Your task to perform on an android device: Open Reddit.com Image 0: 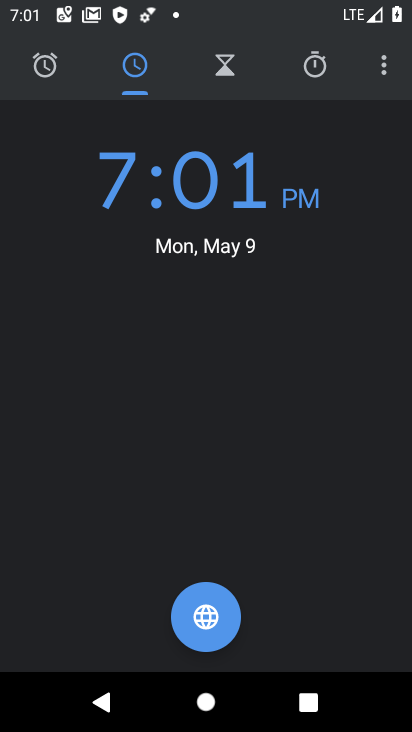
Step 0: press back button
Your task to perform on an android device: Open Reddit.com Image 1: 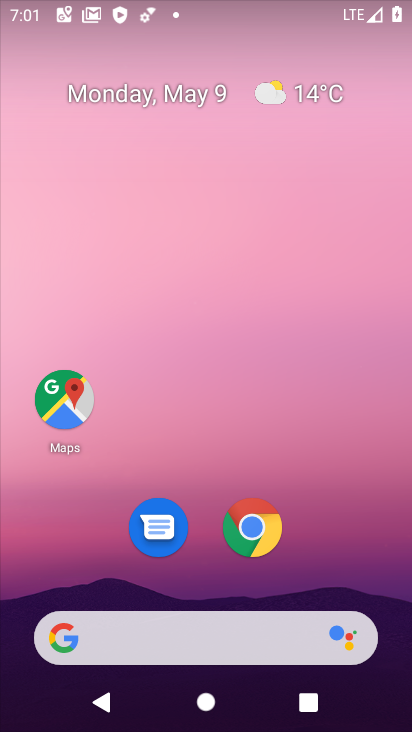
Step 1: click (249, 527)
Your task to perform on an android device: Open Reddit.com Image 2: 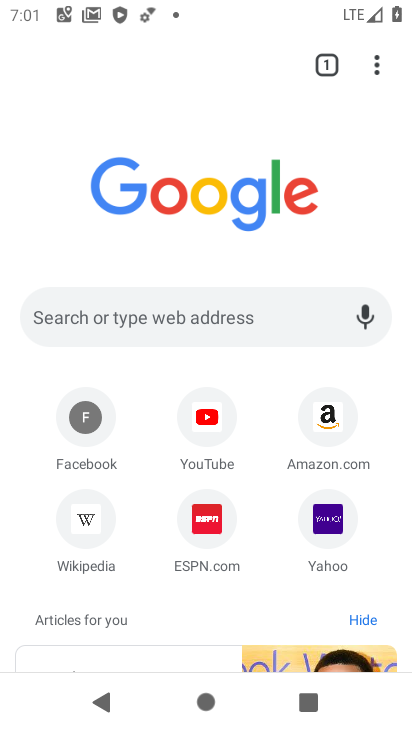
Step 2: click (254, 308)
Your task to perform on an android device: Open Reddit.com Image 3: 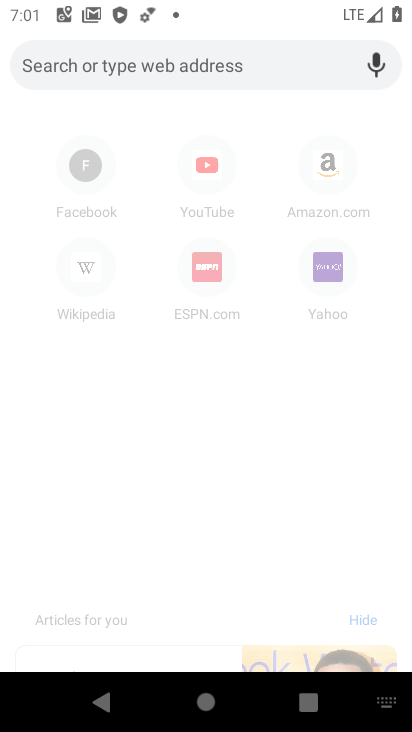
Step 3: type "Reddit.com"
Your task to perform on an android device: Open Reddit.com Image 4: 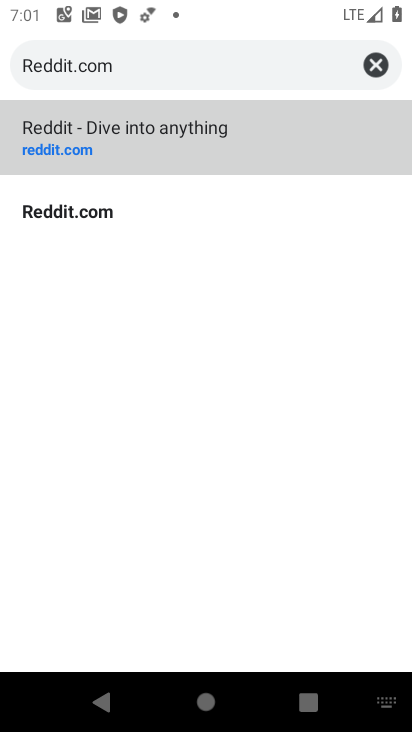
Step 4: click (66, 211)
Your task to perform on an android device: Open Reddit.com Image 5: 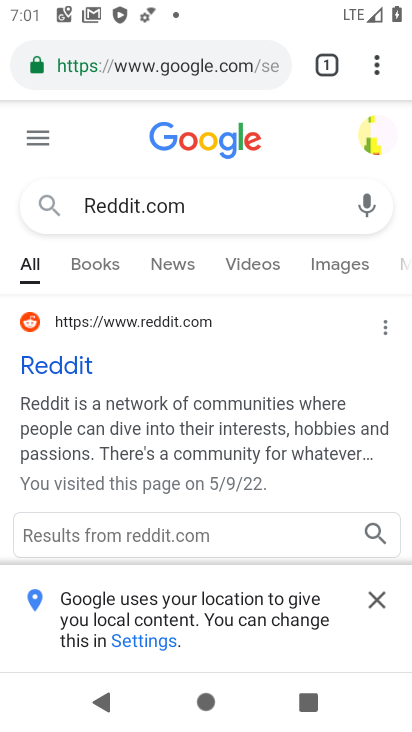
Step 5: click (375, 598)
Your task to perform on an android device: Open Reddit.com Image 6: 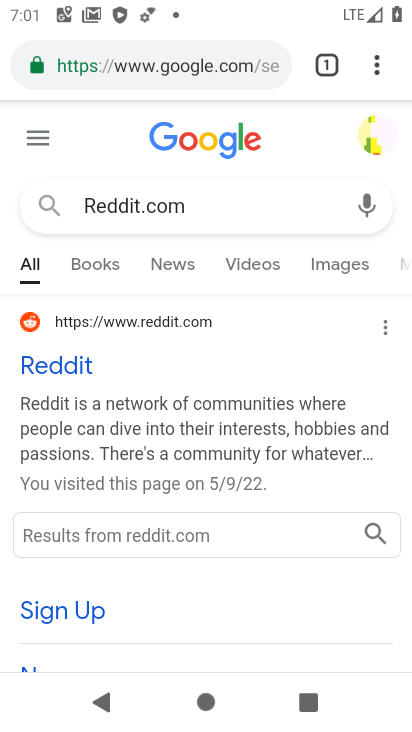
Step 6: click (58, 365)
Your task to perform on an android device: Open Reddit.com Image 7: 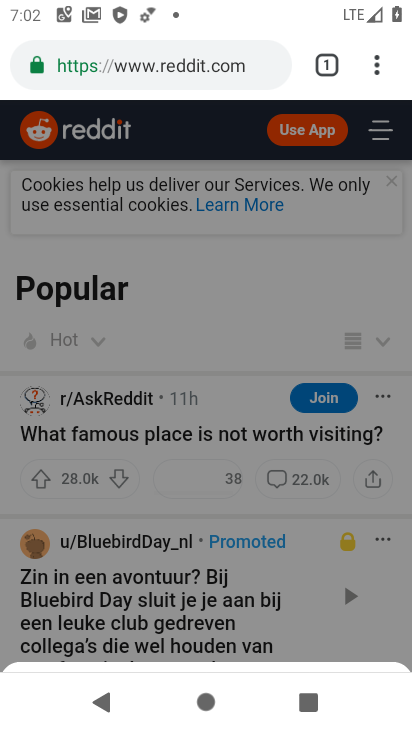
Step 7: task complete